Your task to perform on an android device: When is my next appointment? Image 0: 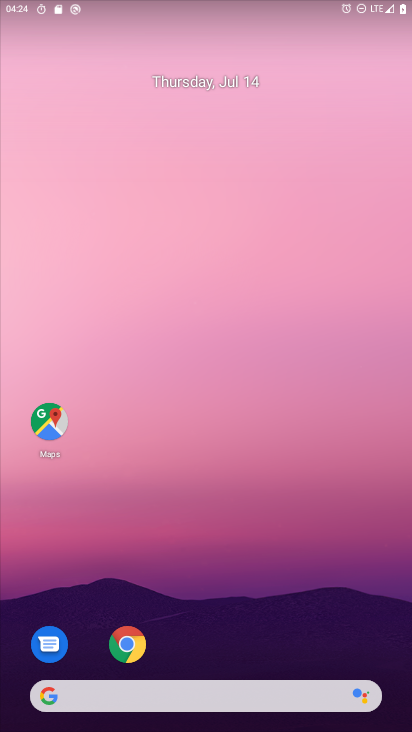
Step 0: drag from (330, 624) to (237, 157)
Your task to perform on an android device: When is my next appointment? Image 1: 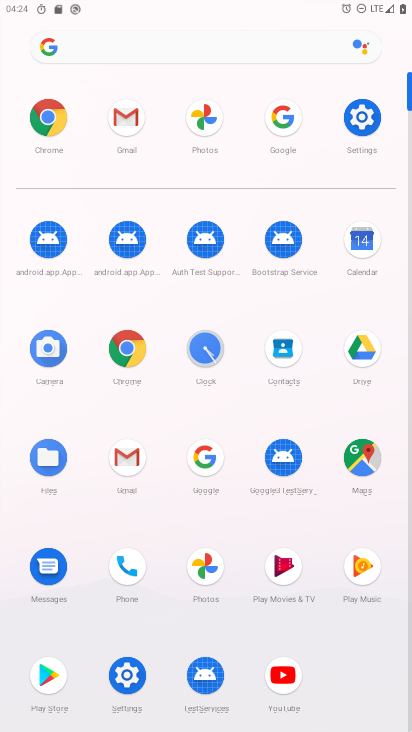
Step 1: click (364, 236)
Your task to perform on an android device: When is my next appointment? Image 2: 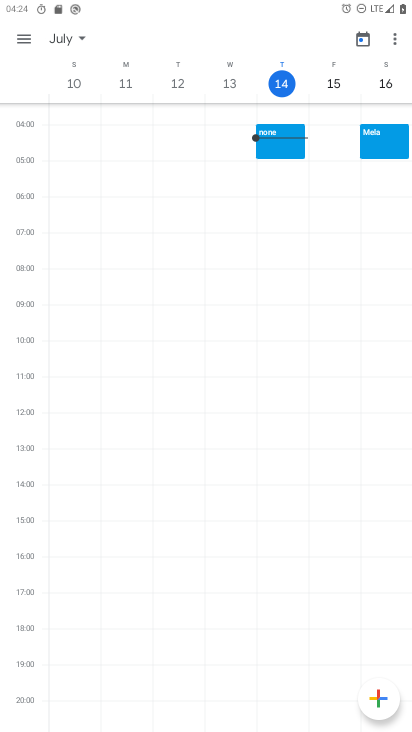
Step 2: click (282, 62)
Your task to perform on an android device: When is my next appointment? Image 3: 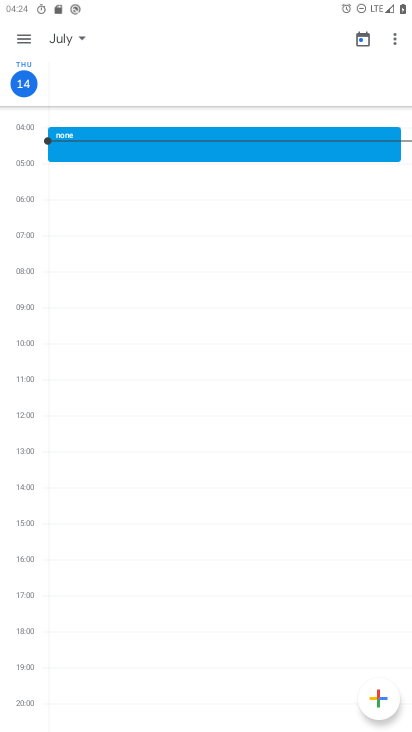
Step 3: task complete